Your task to perform on an android device: change the upload size in google photos Image 0: 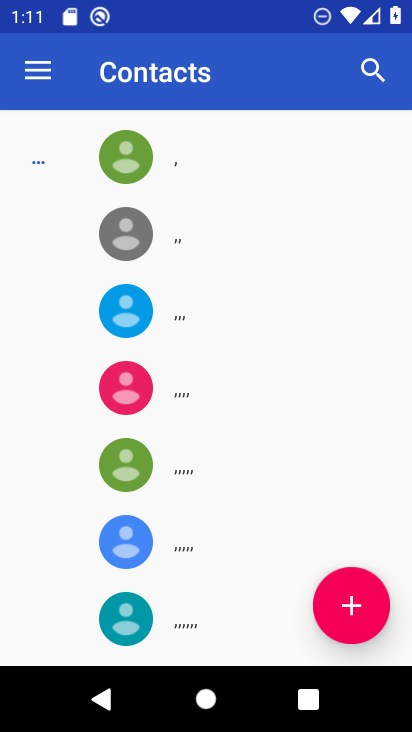
Step 0: press home button
Your task to perform on an android device: change the upload size in google photos Image 1: 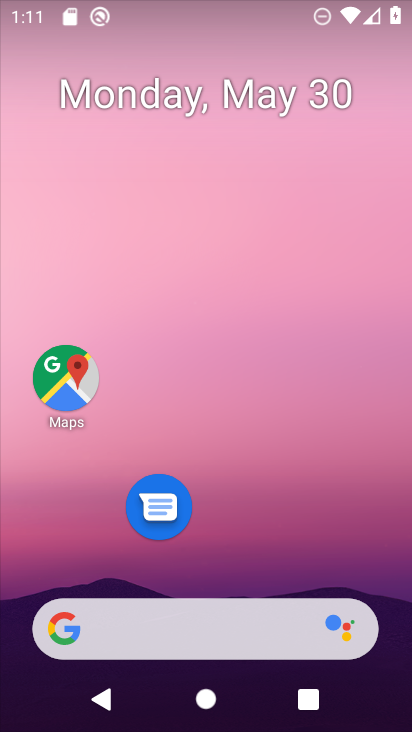
Step 1: drag from (262, 579) to (310, 104)
Your task to perform on an android device: change the upload size in google photos Image 2: 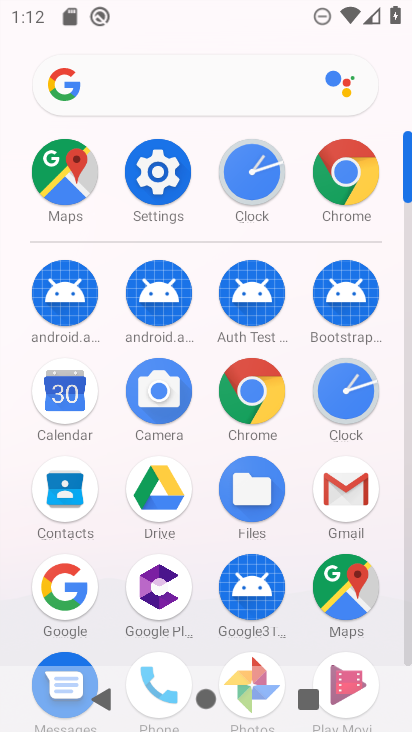
Step 2: drag from (193, 260) to (224, 46)
Your task to perform on an android device: change the upload size in google photos Image 3: 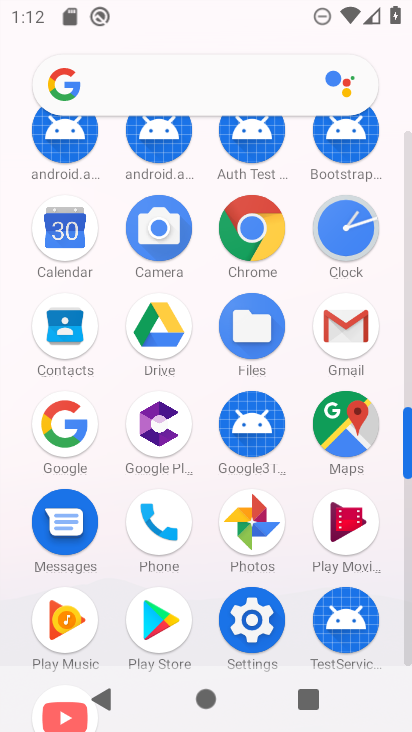
Step 3: click (256, 525)
Your task to perform on an android device: change the upload size in google photos Image 4: 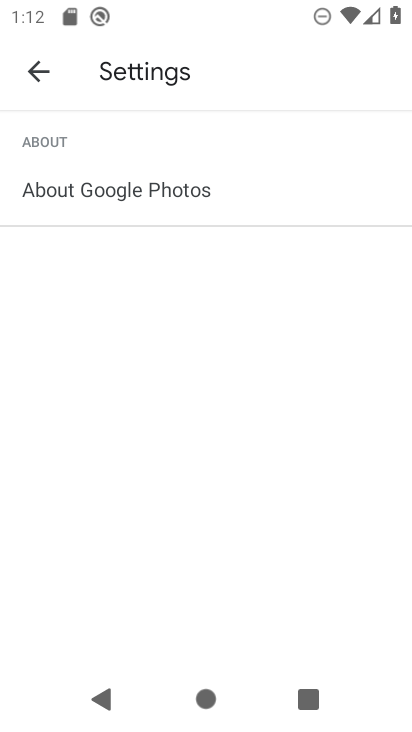
Step 4: click (33, 71)
Your task to perform on an android device: change the upload size in google photos Image 5: 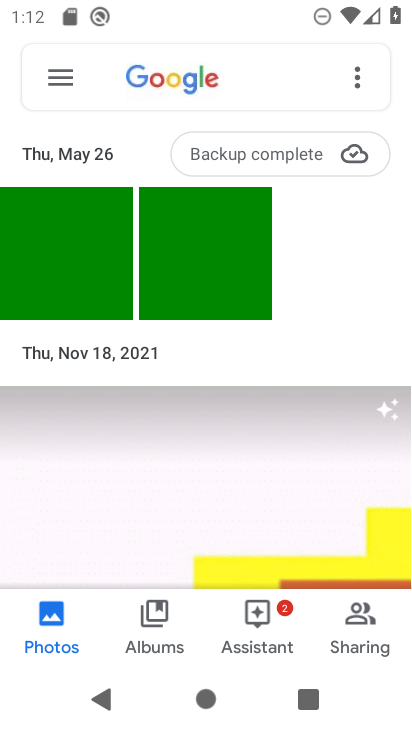
Step 5: click (49, 78)
Your task to perform on an android device: change the upload size in google photos Image 6: 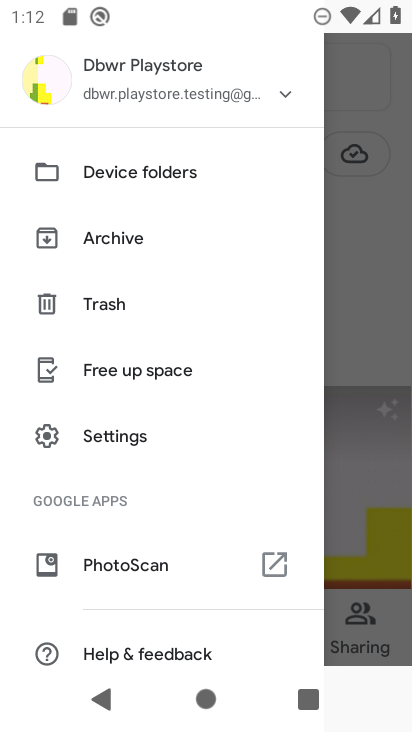
Step 6: click (140, 436)
Your task to perform on an android device: change the upload size in google photos Image 7: 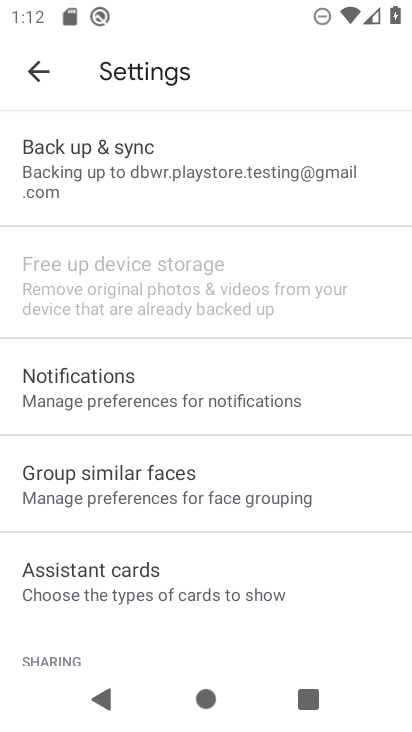
Step 7: click (63, 158)
Your task to perform on an android device: change the upload size in google photos Image 8: 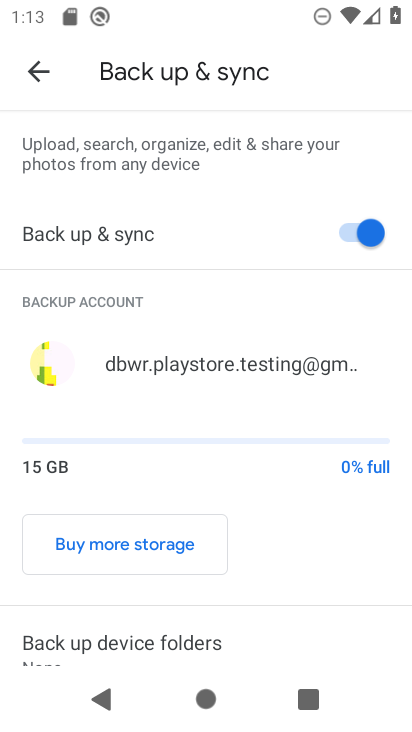
Step 8: drag from (264, 586) to (273, 206)
Your task to perform on an android device: change the upload size in google photos Image 9: 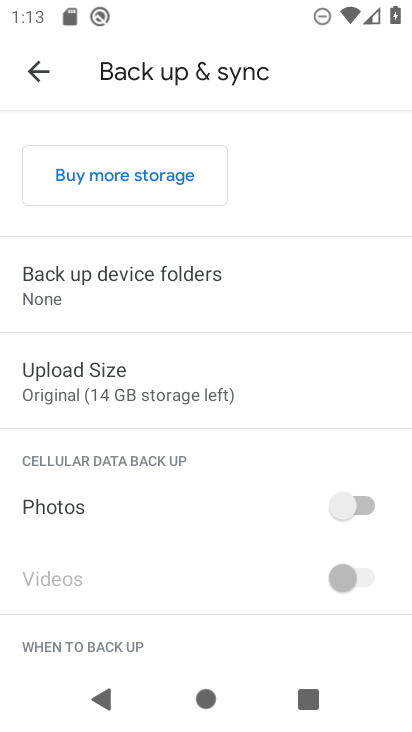
Step 9: click (100, 381)
Your task to perform on an android device: change the upload size in google photos Image 10: 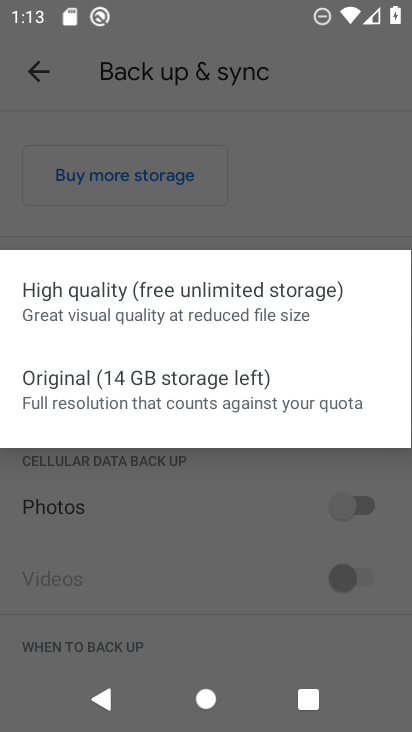
Step 10: click (181, 382)
Your task to perform on an android device: change the upload size in google photos Image 11: 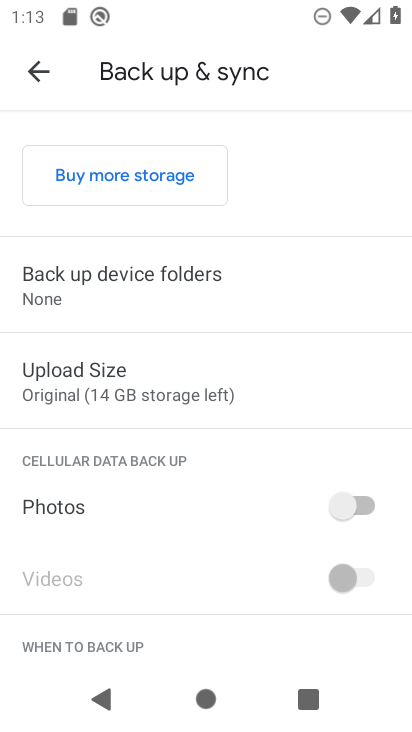
Step 11: task complete